Your task to perform on an android device: Open the web browser Image 0: 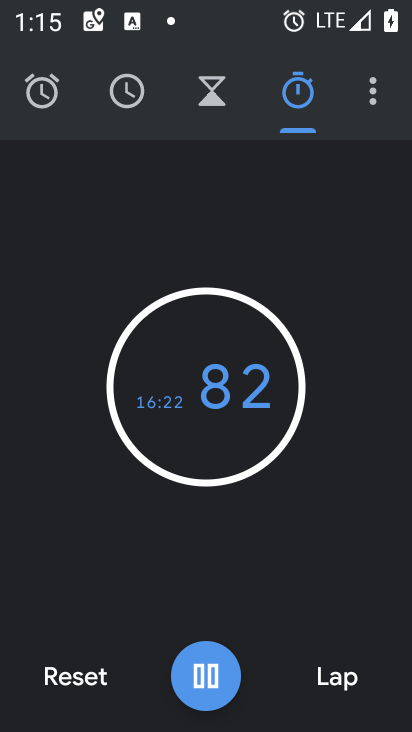
Step 0: press home button
Your task to perform on an android device: Open the web browser Image 1: 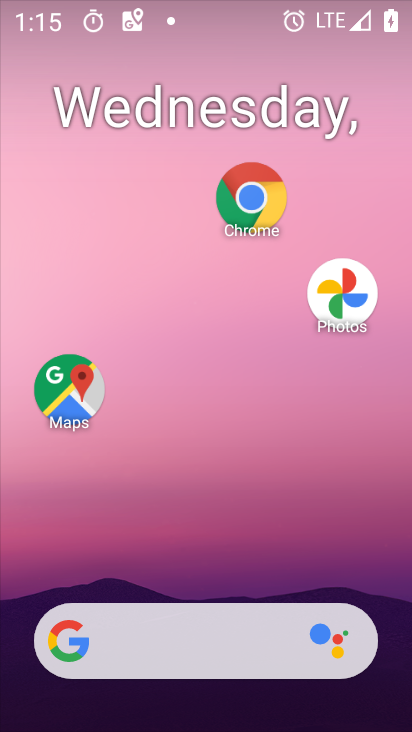
Step 1: drag from (291, 561) to (265, 126)
Your task to perform on an android device: Open the web browser Image 2: 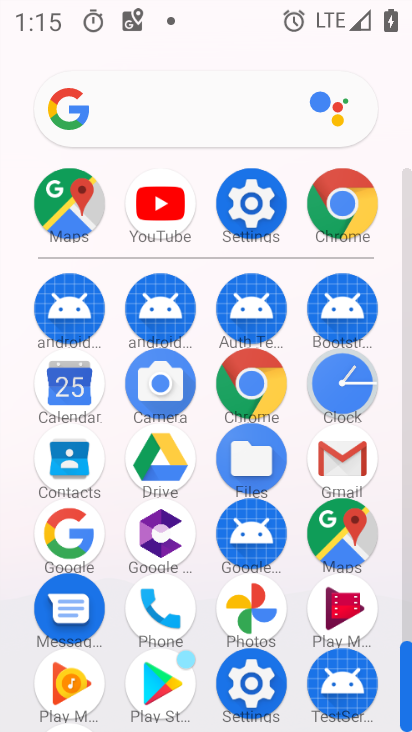
Step 2: click (261, 393)
Your task to perform on an android device: Open the web browser Image 3: 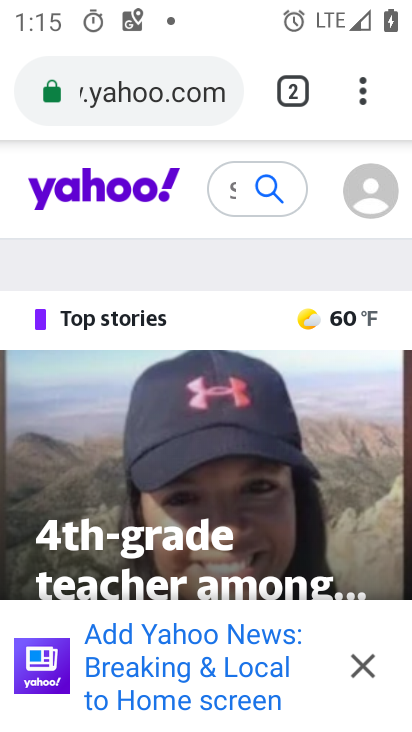
Step 3: task complete